Your task to perform on an android device: open app "PlayWell" Image 0: 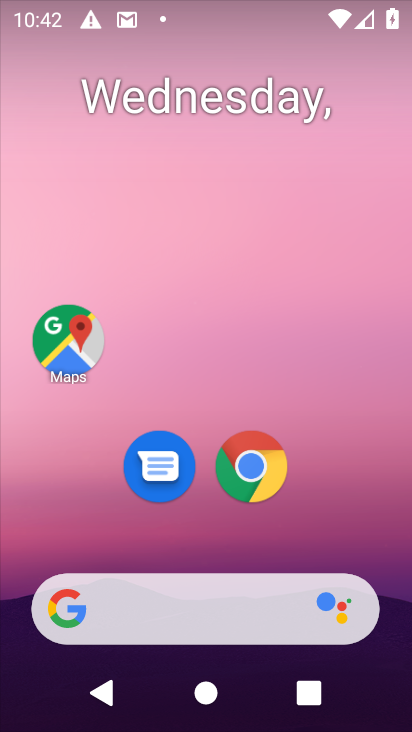
Step 0: drag from (308, 613) to (319, 197)
Your task to perform on an android device: open app "PlayWell" Image 1: 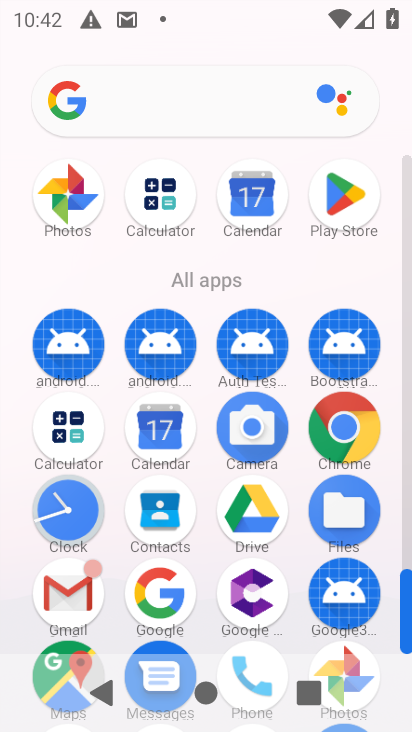
Step 1: click (350, 233)
Your task to perform on an android device: open app "PlayWell" Image 2: 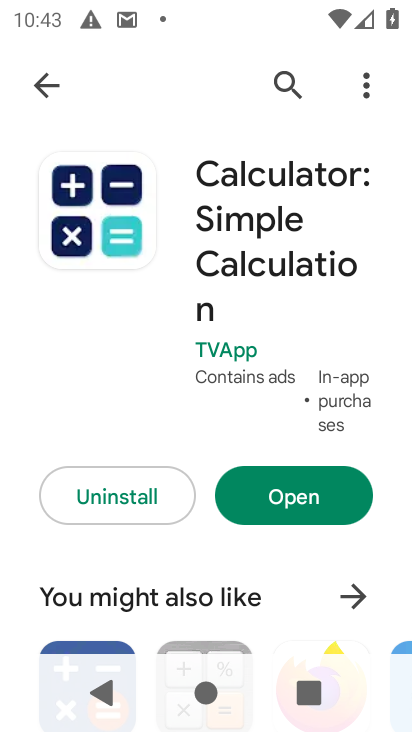
Step 2: task complete